Your task to perform on an android device: turn on the 12-hour format for clock Image 0: 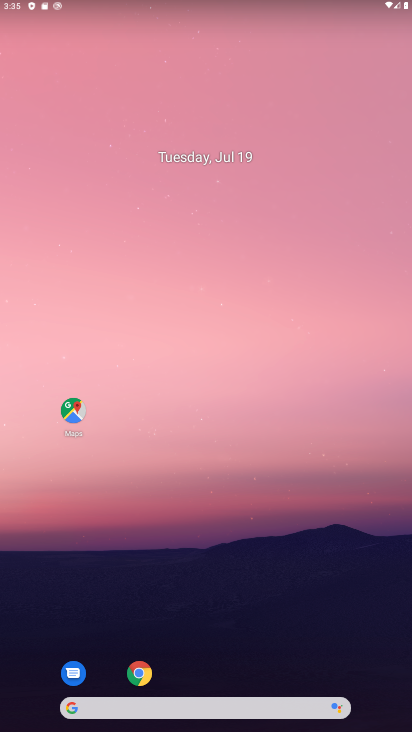
Step 0: drag from (330, 632) to (260, 12)
Your task to perform on an android device: turn on the 12-hour format for clock Image 1: 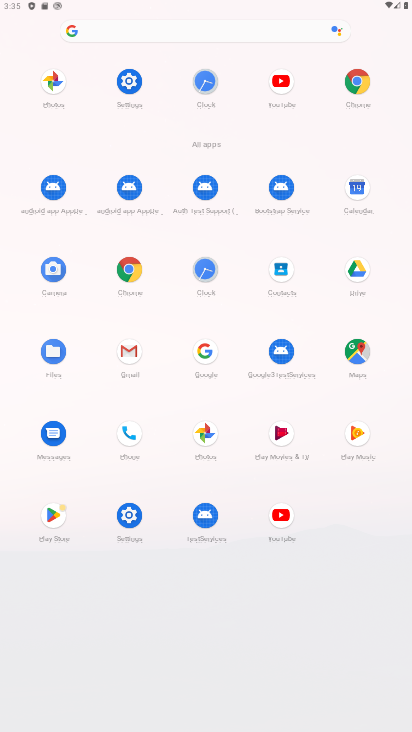
Step 1: click (210, 272)
Your task to perform on an android device: turn on the 12-hour format for clock Image 2: 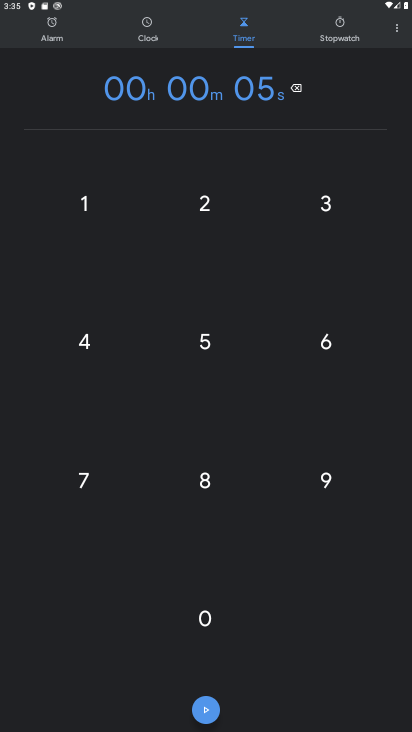
Step 2: click (404, 31)
Your task to perform on an android device: turn on the 12-hour format for clock Image 3: 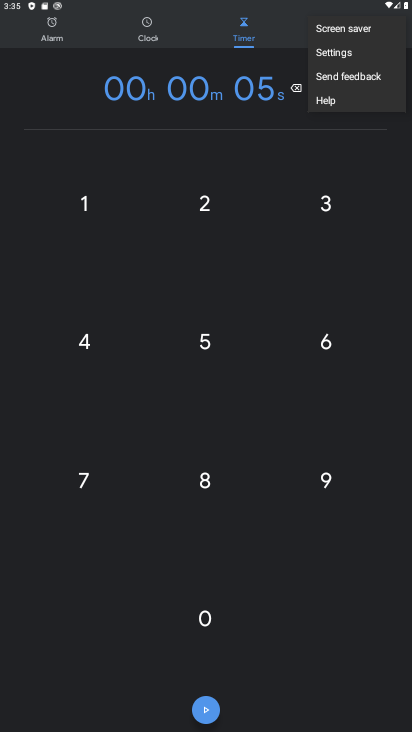
Step 3: click (352, 65)
Your task to perform on an android device: turn on the 12-hour format for clock Image 4: 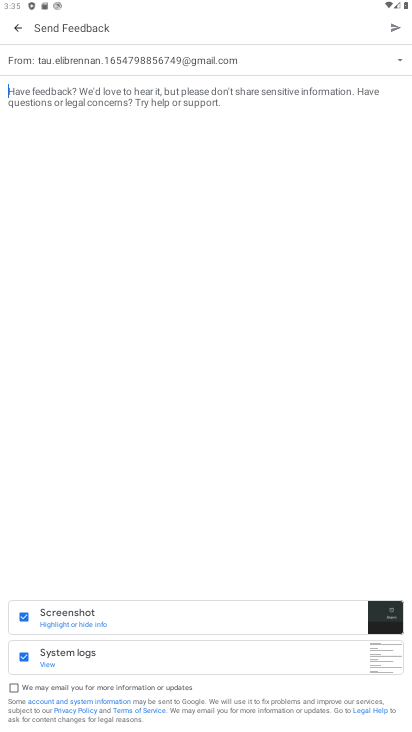
Step 4: press home button
Your task to perform on an android device: turn on the 12-hour format for clock Image 5: 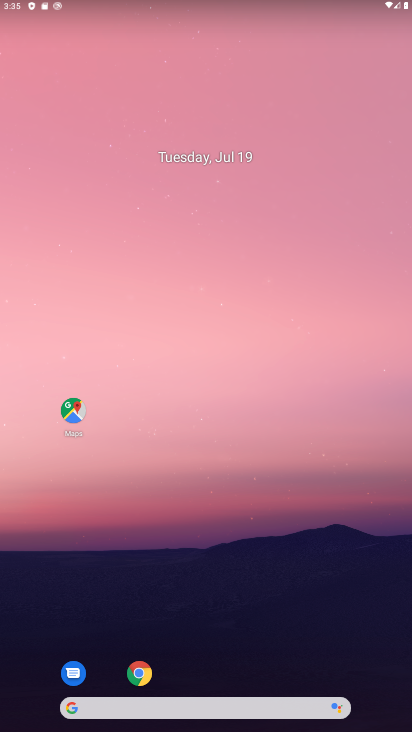
Step 5: drag from (180, 593) to (198, 61)
Your task to perform on an android device: turn on the 12-hour format for clock Image 6: 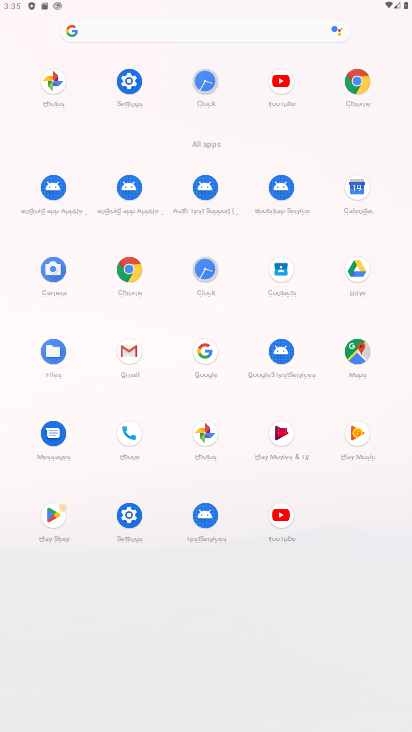
Step 6: click (208, 274)
Your task to perform on an android device: turn on the 12-hour format for clock Image 7: 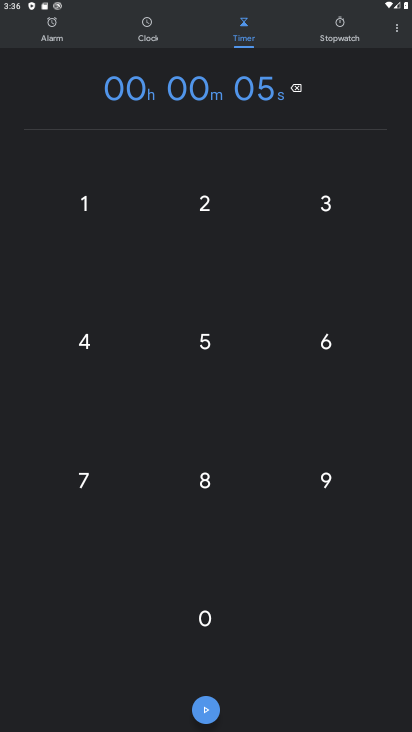
Step 7: click (398, 30)
Your task to perform on an android device: turn on the 12-hour format for clock Image 8: 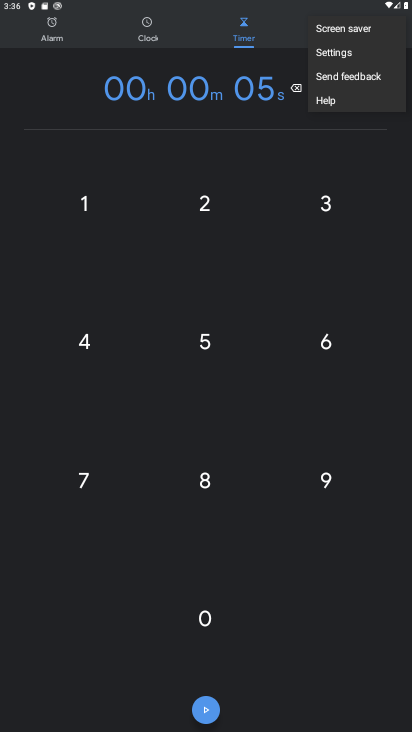
Step 8: click (344, 64)
Your task to perform on an android device: turn on the 12-hour format for clock Image 9: 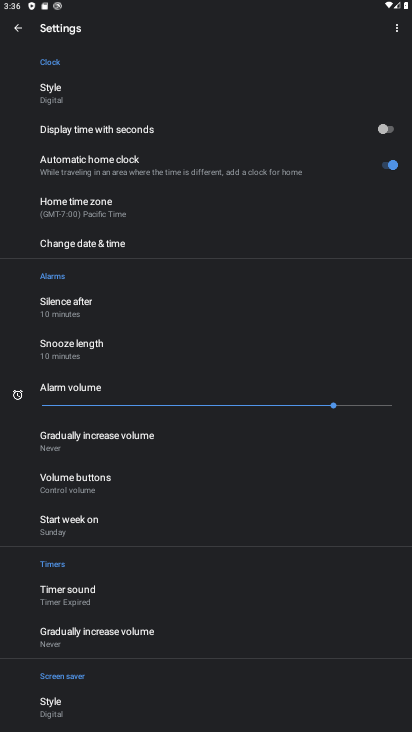
Step 9: click (100, 249)
Your task to perform on an android device: turn on the 12-hour format for clock Image 10: 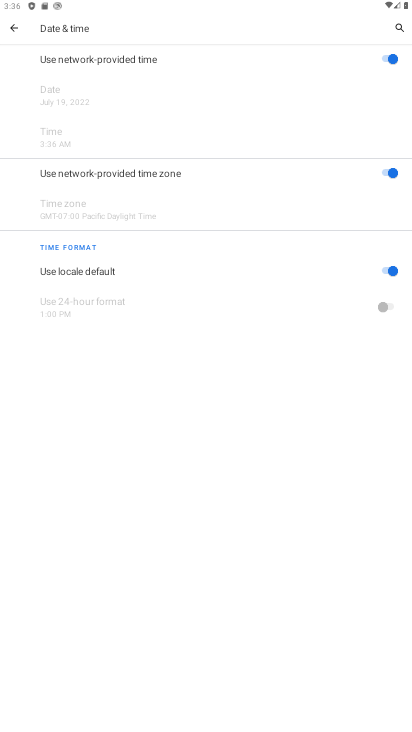
Step 10: task complete